Your task to perform on an android device: move an email to a new category in the gmail app Image 0: 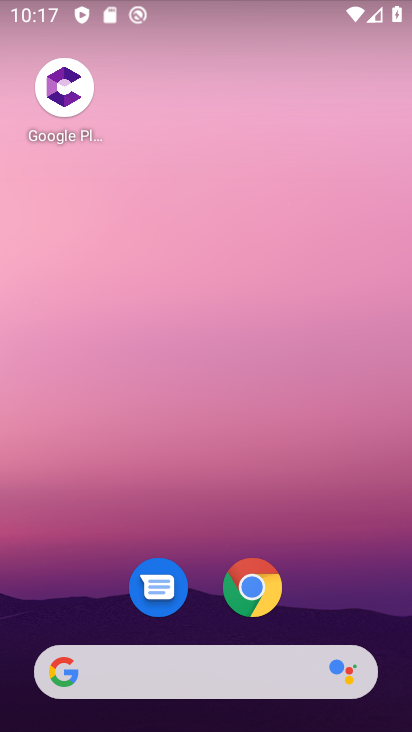
Step 0: drag from (402, 698) to (354, 487)
Your task to perform on an android device: move an email to a new category in the gmail app Image 1: 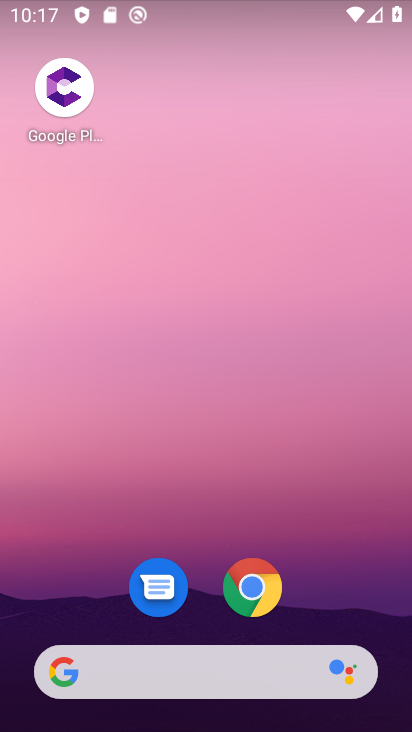
Step 1: drag from (387, 714) to (375, 516)
Your task to perform on an android device: move an email to a new category in the gmail app Image 2: 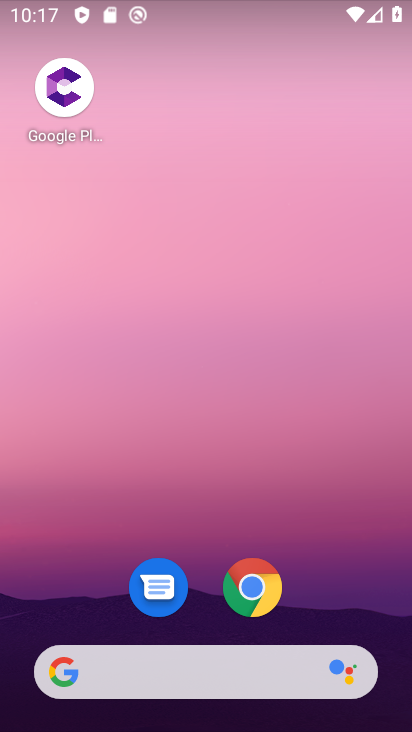
Step 2: drag from (395, 618) to (370, 109)
Your task to perform on an android device: move an email to a new category in the gmail app Image 3: 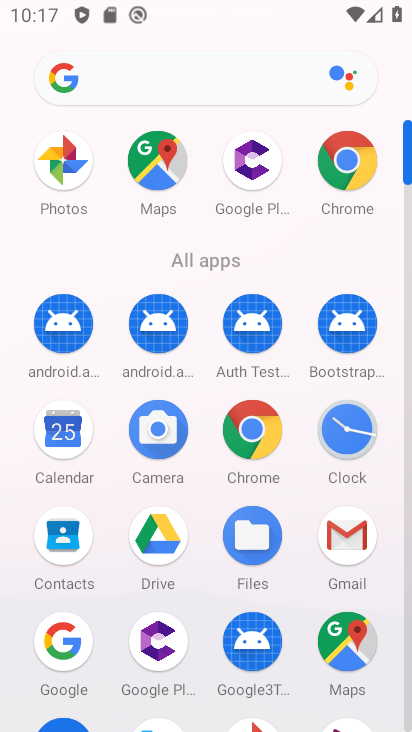
Step 3: click (345, 548)
Your task to perform on an android device: move an email to a new category in the gmail app Image 4: 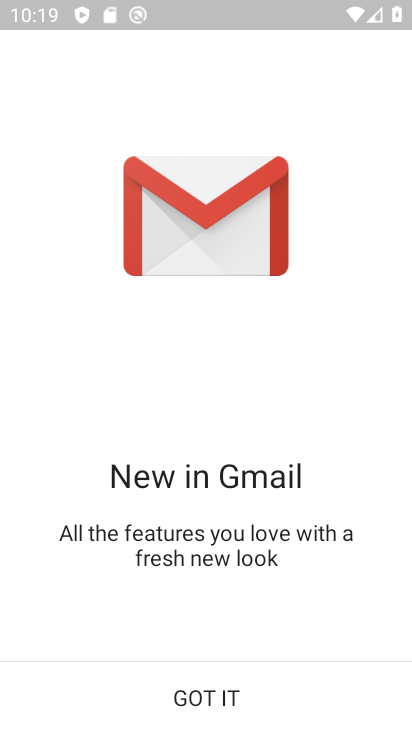
Step 4: click (316, 680)
Your task to perform on an android device: move an email to a new category in the gmail app Image 5: 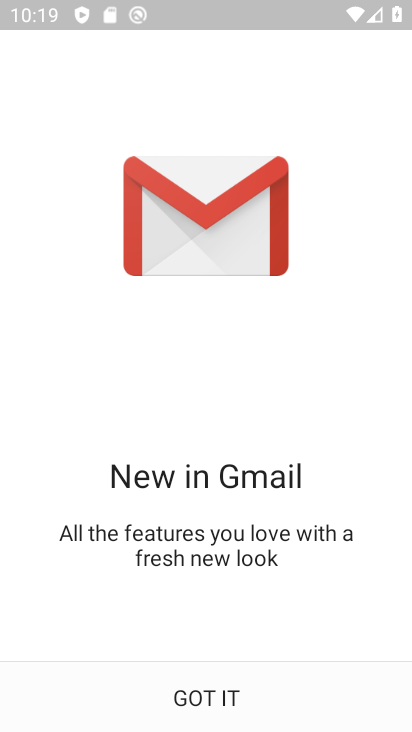
Step 5: click (316, 680)
Your task to perform on an android device: move an email to a new category in the gmail app Image 6: 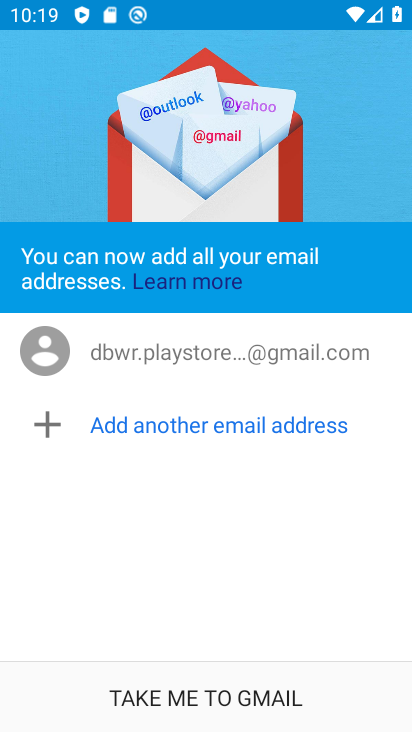
Step 6: click (316, 680)
Your task to perform on an android device: move an email to a new category in the gmail app Image 7: 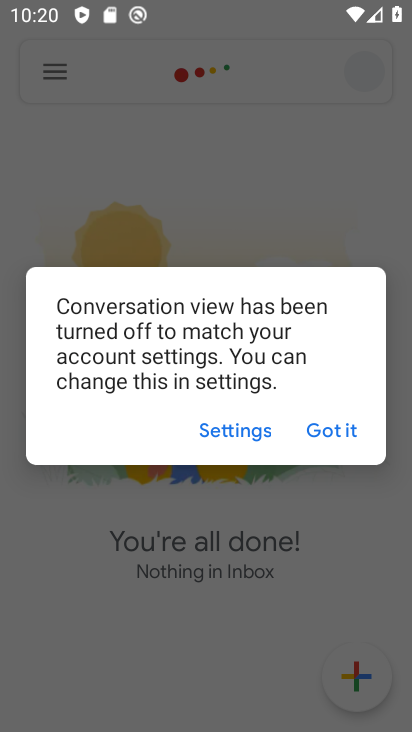
Step 7: click (336, 426)
Your task to perform on an android device: move an email to a new category in the gmail app Image 8: 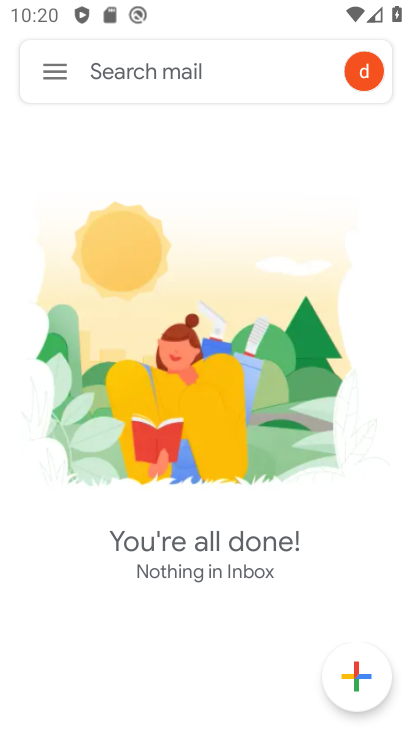
Step 8: task complete